Your task to perform on an android device: change keyboard looks Image 0: 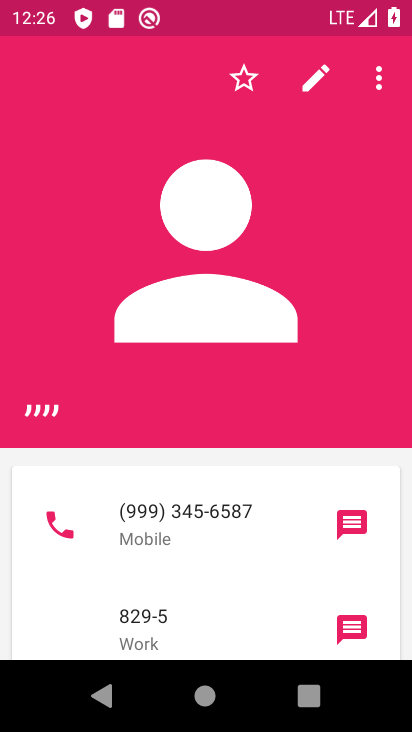
Step 0: press home button
Your task to perform on an android device: change keyboard looks Image 1: 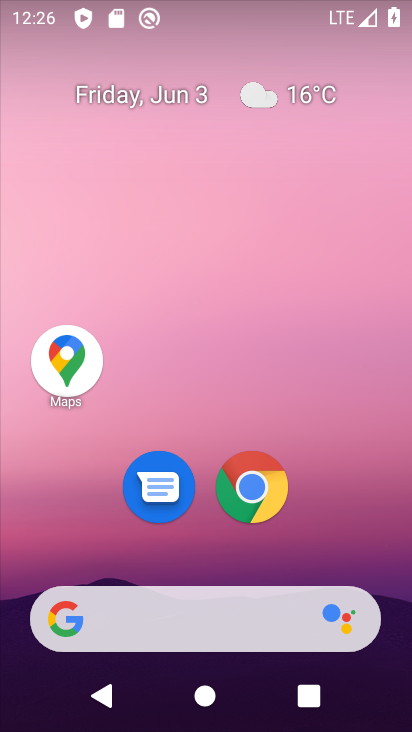
Step 1: drag from (335, 505) to (294, 143)
Your task to perform on an android device: change keyboard looks Image 2: 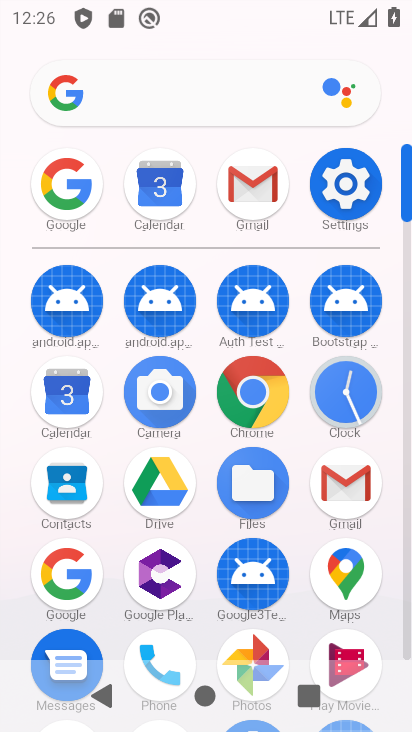
Step 2: click (351, 194)
Your task to perform on an android device: change keyboard looks Image 3: 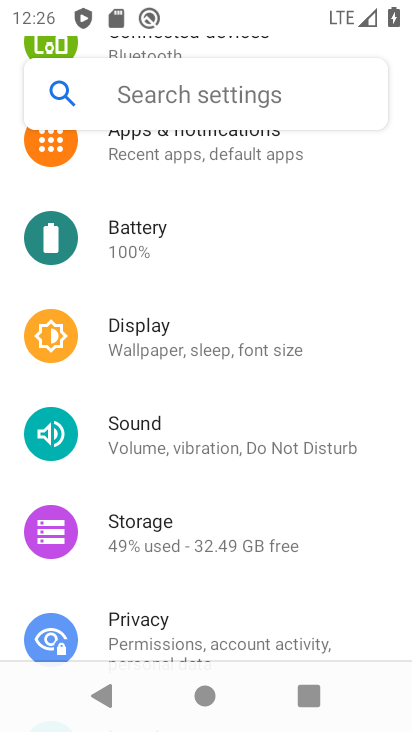
Step 3: drag from (351, 623) to (319, 13)
Your task to perform on an android device: change keyboard looks Image 4: 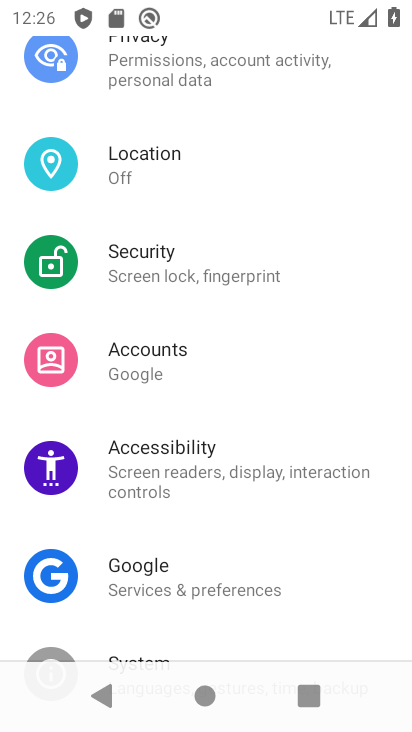
Step 4: drag from (329, 620) to (383, 131)
Your task to perform on an android device: change keyboard looks Image 5: 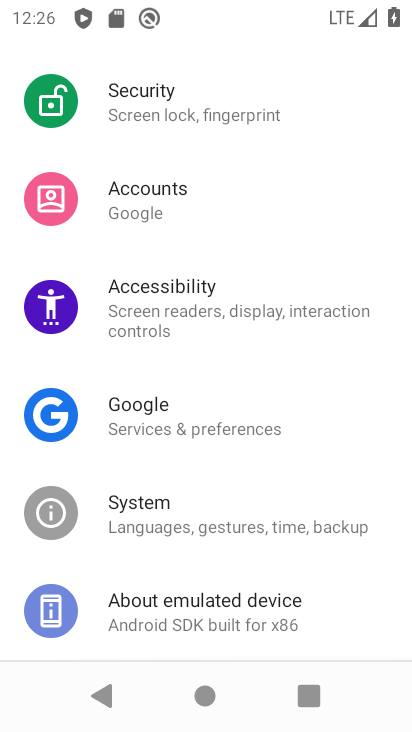
Step 5: click (249, 523)
Your task to perform on an android device: change keyboard looks Image 6: 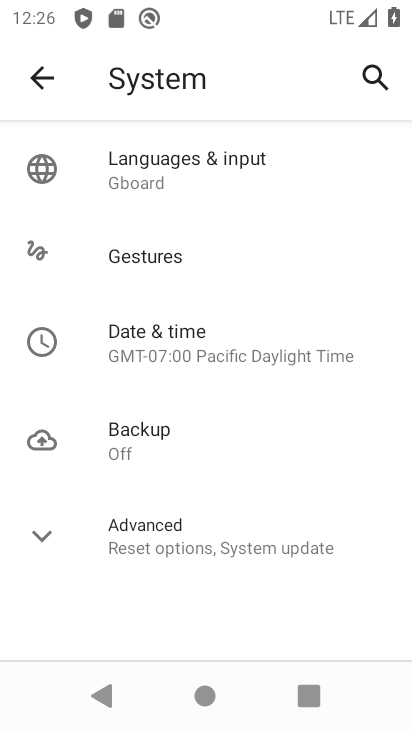
Step 6: click (201, 168)
Your task to perform on an android device: change keyboard looks Image 7: 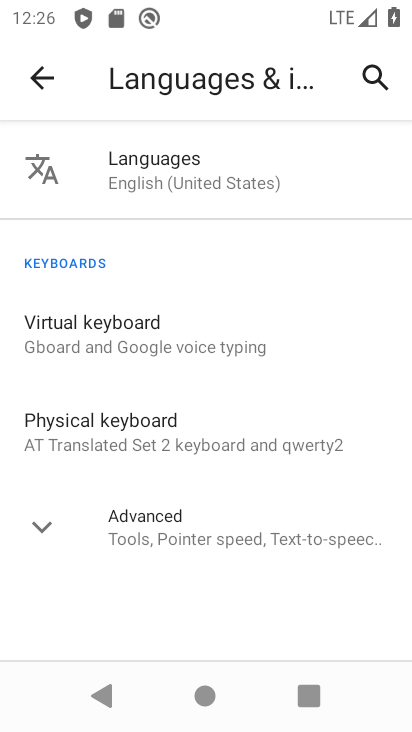
Step 7: click (109, 339)
Your task to perform on an android device: change keyboard looks Image 8: 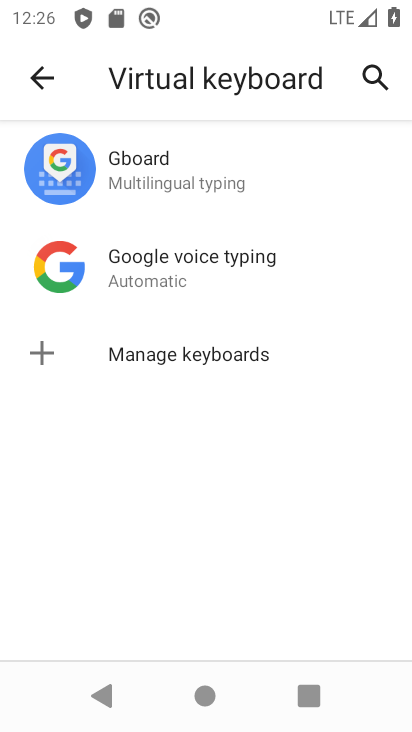
Step 8: click (161, 172)
Your task to perform on an android device: change keyboard looks Image 9: 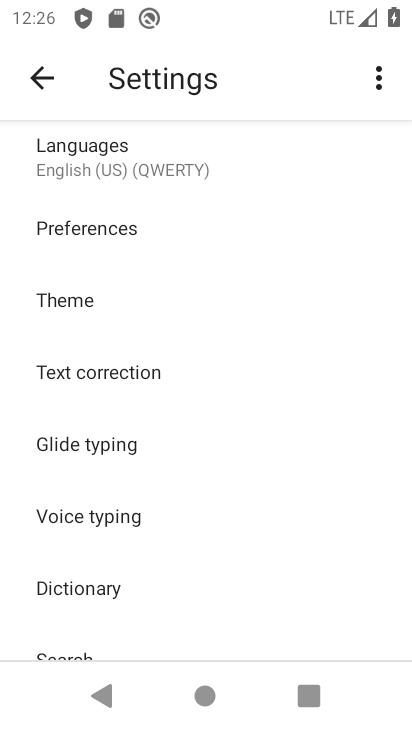
Step 9: click (88, 293)
Your task to perform on an android device: change keyboard looks Image 10: 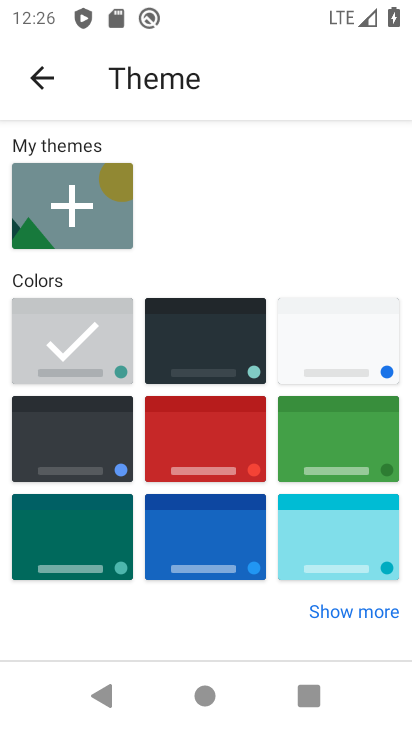
Step 10: click (90, 477)
Your task to perform on an android device: change keyboard looks Image 11: 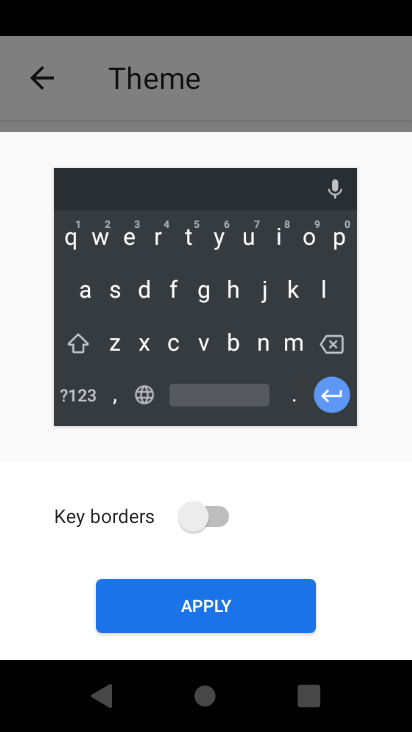
Step 11: click (253, 617)
Your task to perform on an android device: change keyboard looks Image 12: 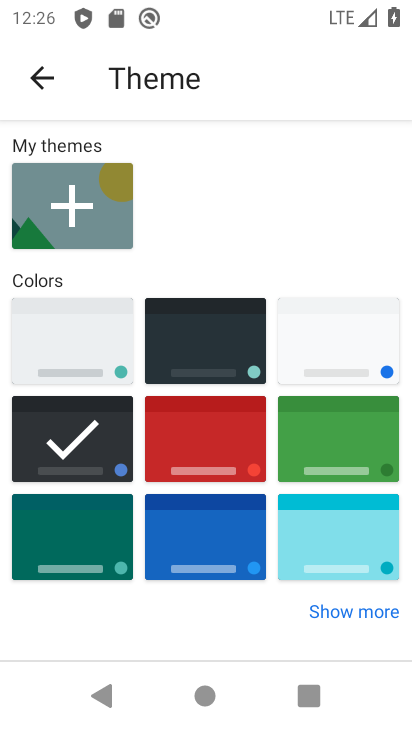
Step 12: task complete